Your task to perform on an android device: Is it going to rain tomorrow? Image 0: 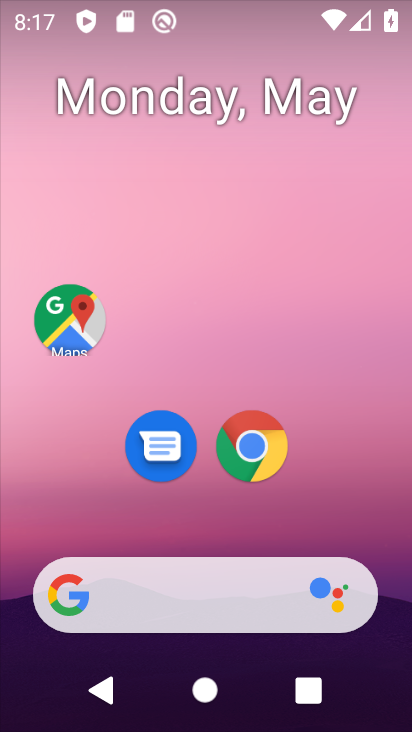
Step 0: press home button
Your task to perform on an android device: Is it going to rain tomorrow? Image 1: 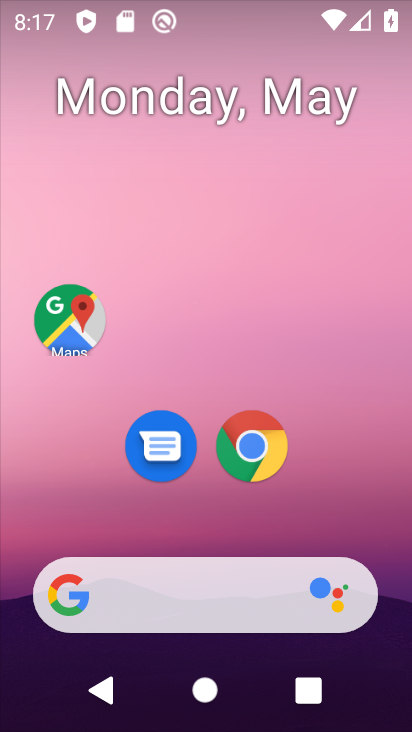
Step 1: drag from (7, 222) to (383, 254)
Your task to perform on an android device: Is it going to rain tomorrow? Image 2: 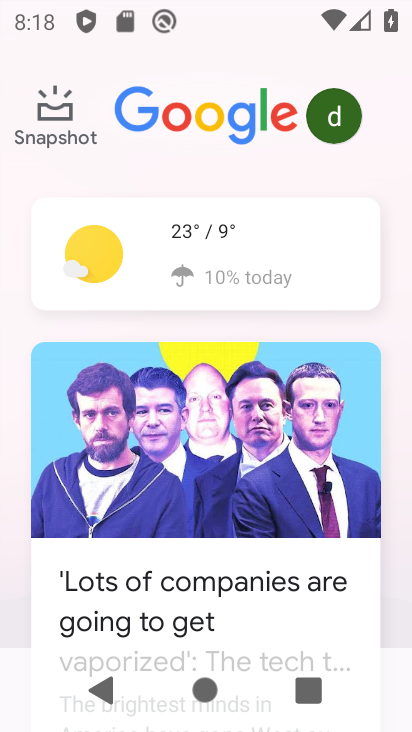
Step 2: click (242, 239)
Your task to perform on an android device: Is it going to rain tomorrow? Image 3: 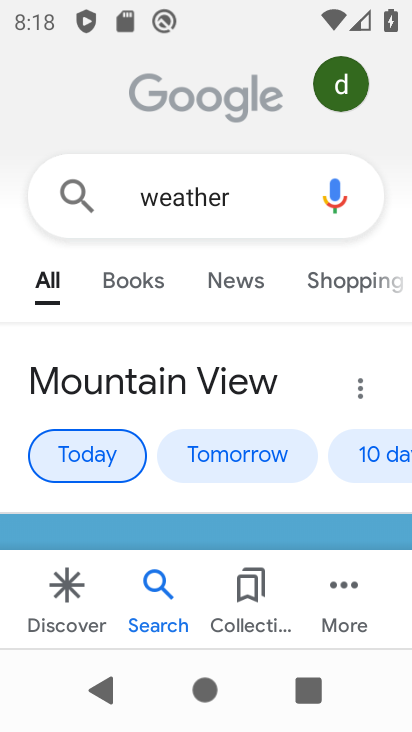
Step 3: click (229, 457)
Your task to perform on an android device: Is it going to rain tomorrow? Image 4: 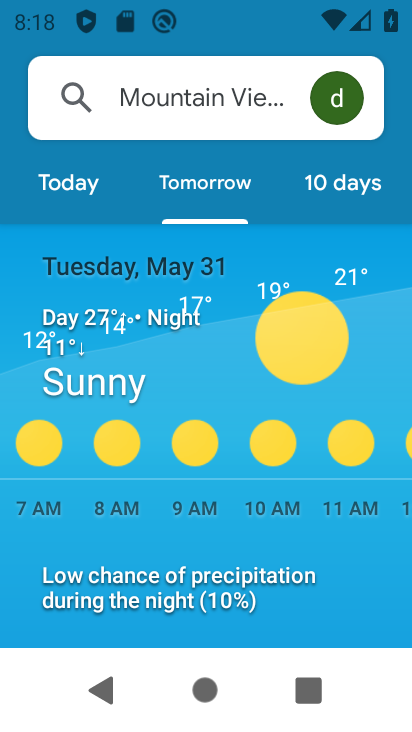
Step 4: task complete